Your task to perform on an android device: open a bookmark in the chrome app Image 0: 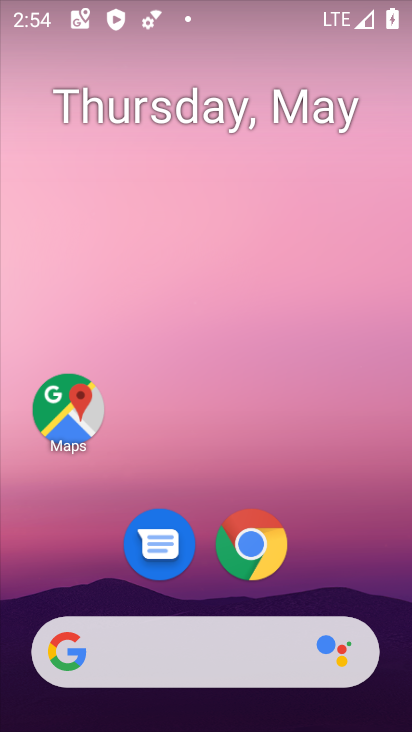
Step 0: click (258, 547)
Your task to perform on an android device: open a bookmark in the chrome app Image 1: 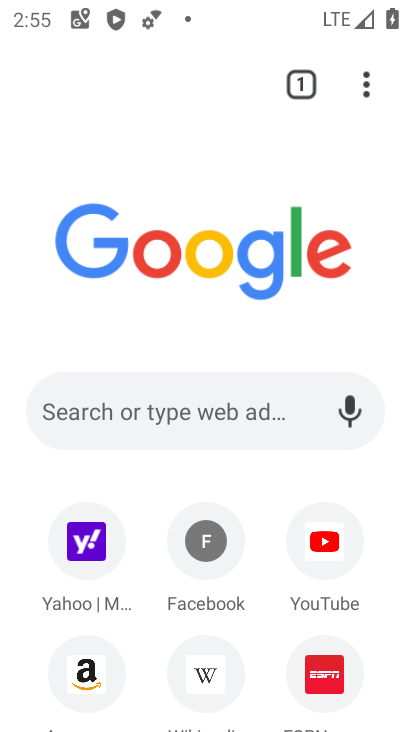
Step 1: click (362, 81)
Your task to perform on an android device: open a bookmark in the chrome app Image 2: 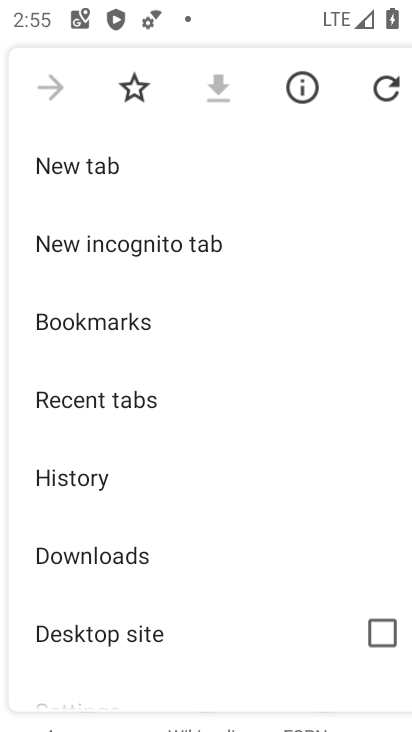
Step 2: click (106, 327)
Your task to perform on an android device: open a bookmark in the chrome app Image 3: 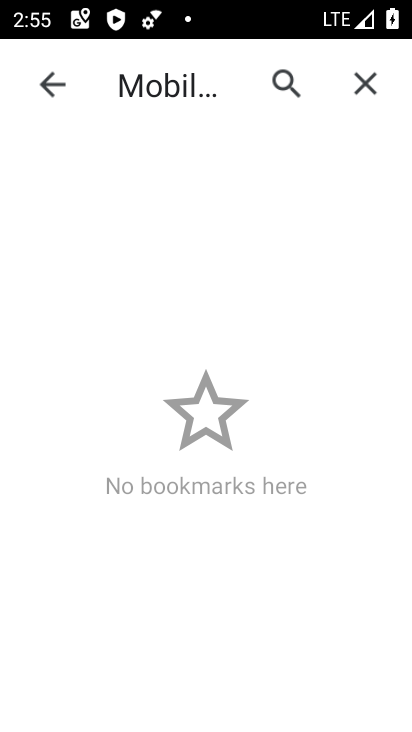
Step 3: task complete